Your task to perform on an android device: check storage Image 0: 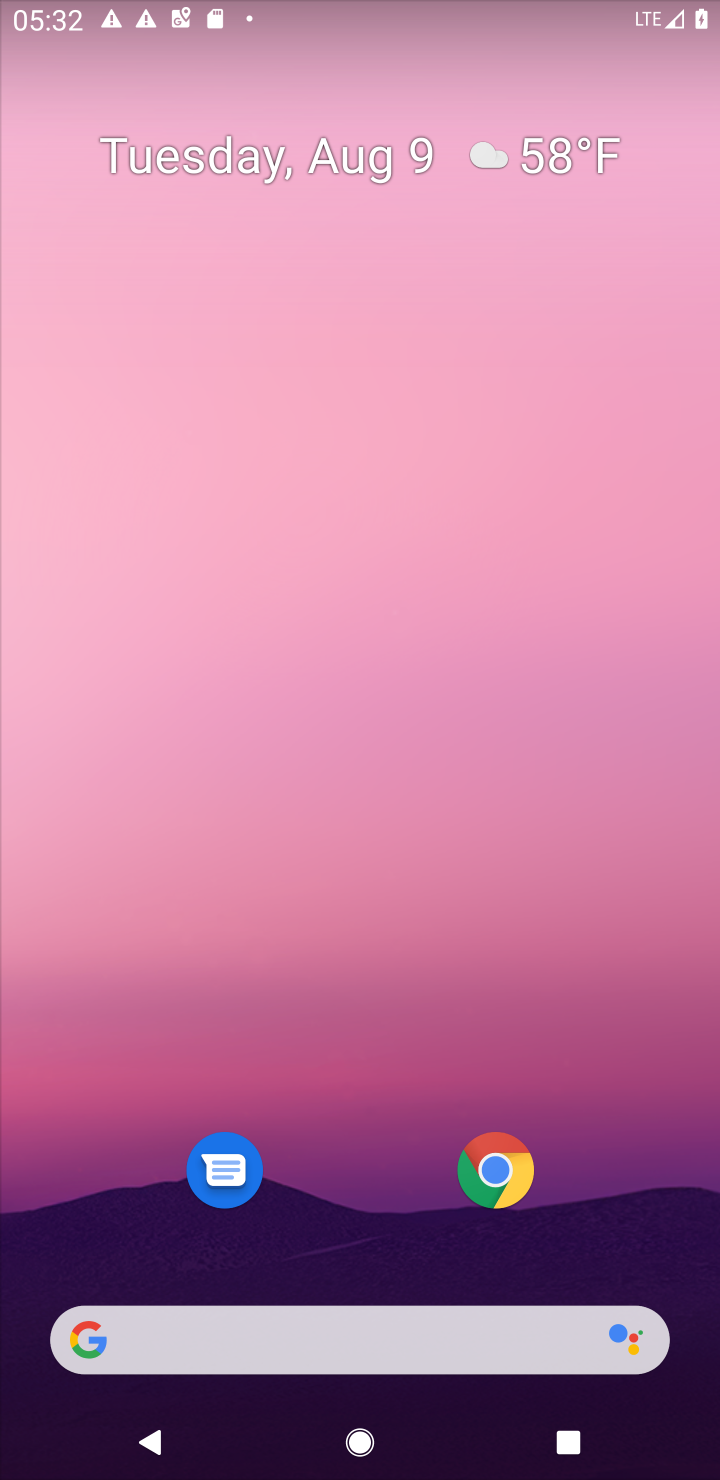
Step 0: press home button
Your task to perform on an android device: check storage Image 1: 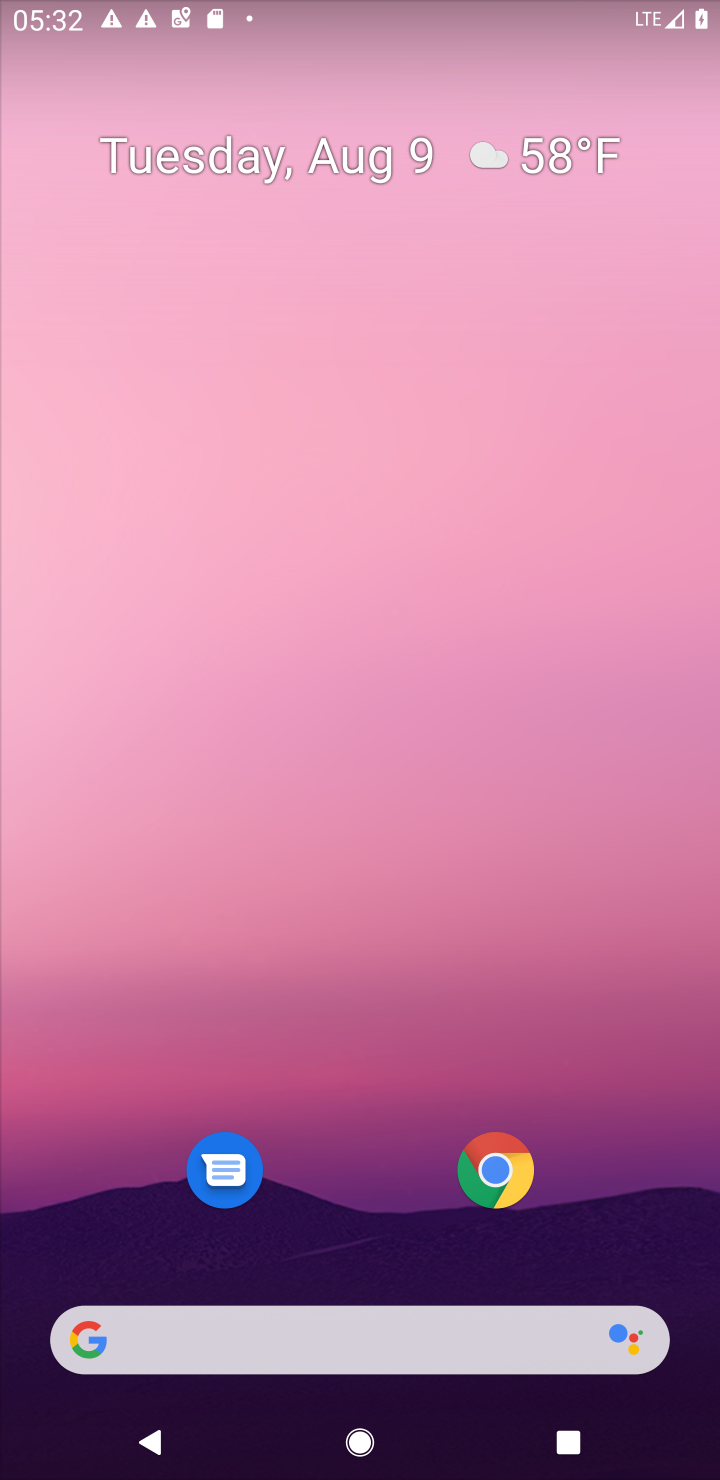
Step 1: drag from (402, 1255) to (384, 46)
Your task to perform on an android device: check storage Image 2: 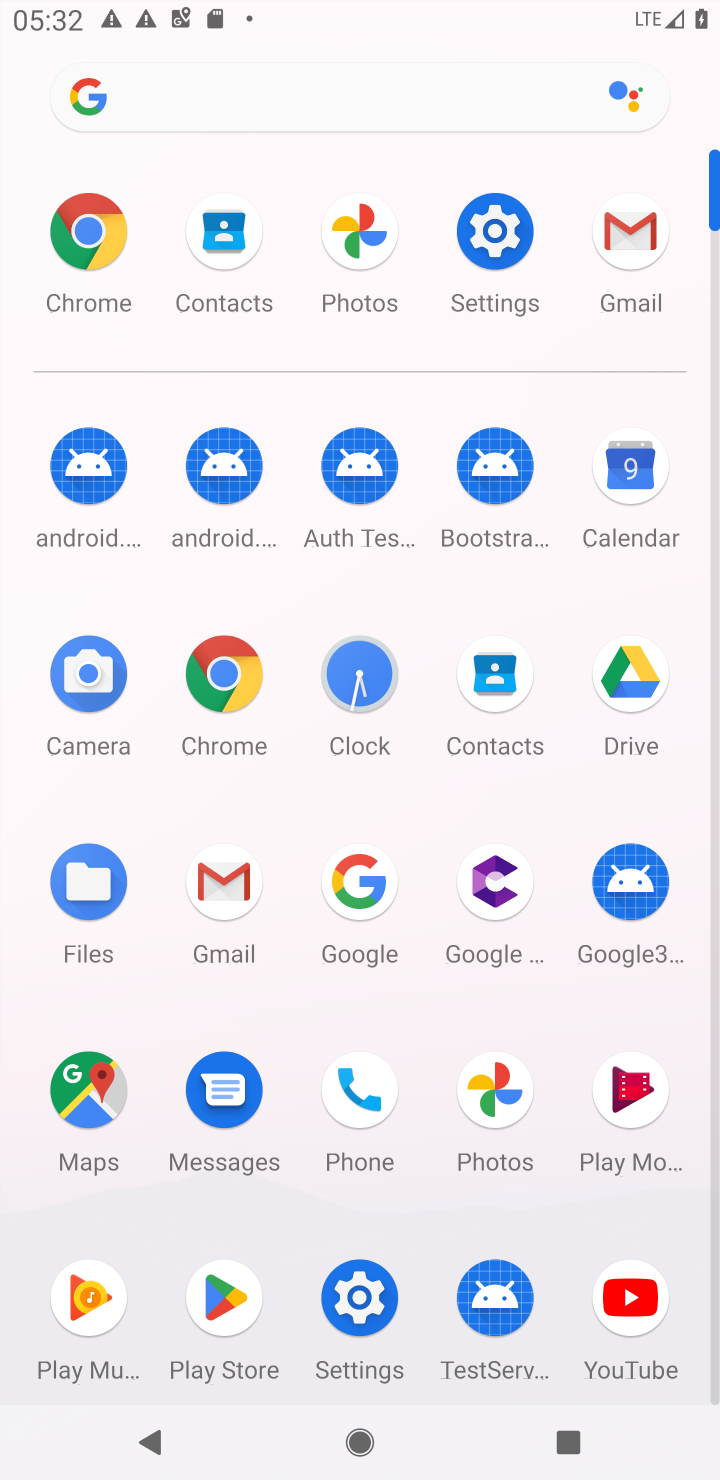
Step 2: click (491, 229)
Your task to perform on an android device: check storage Image 3: 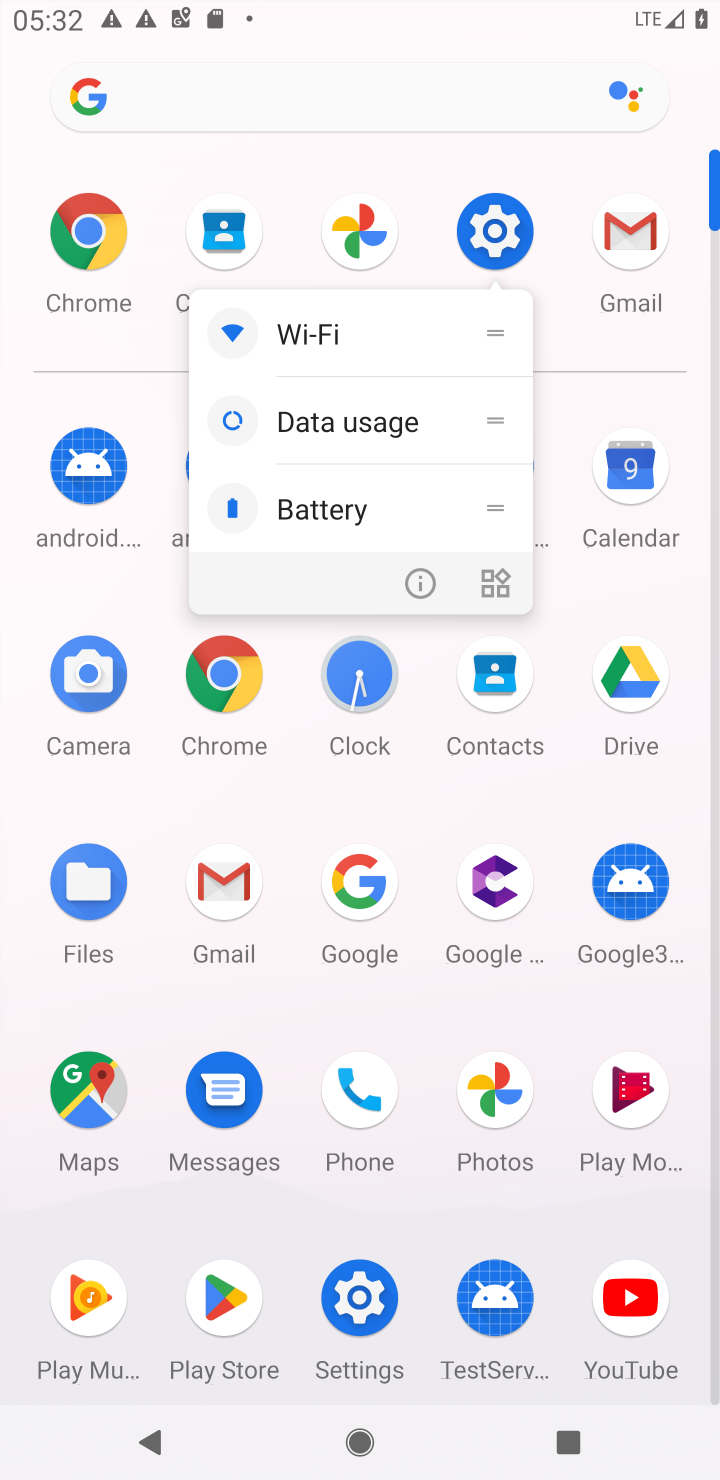
Step 3: click (482, 207)
Your task to perform on an android device: check storage Image 4: 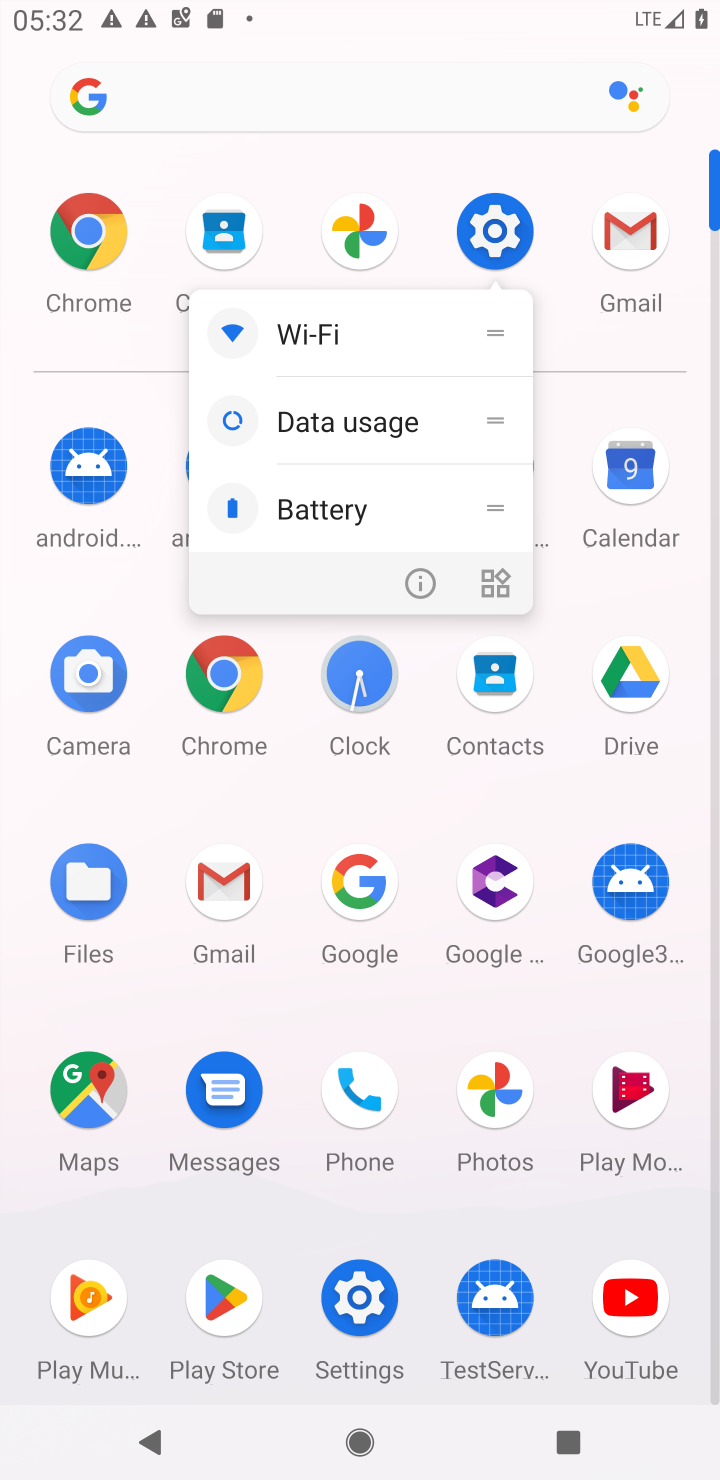
Step 4: click (487, 236)
Your task to perform on an android device: check storage Image 5: 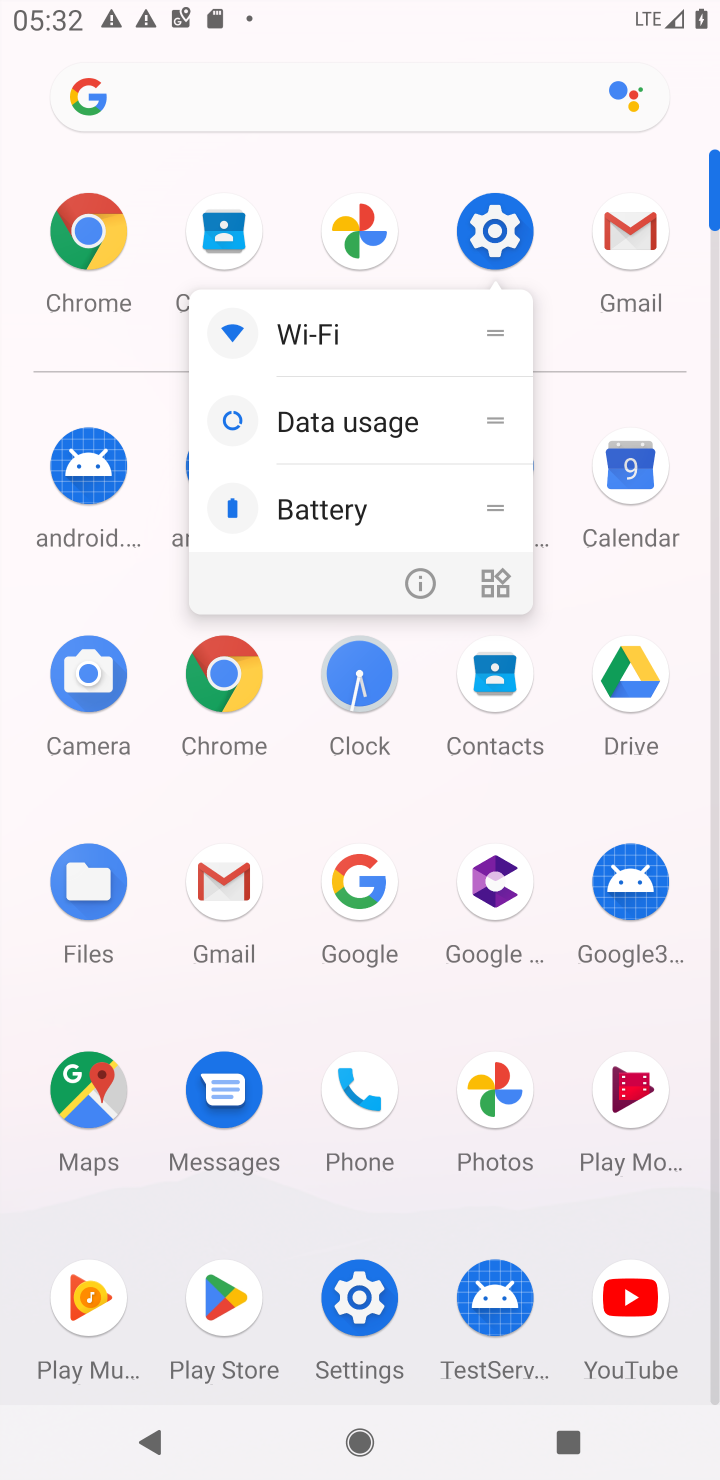
Step 5: click (500, 254)
Your task to perform on an android device: check storage Image 6: 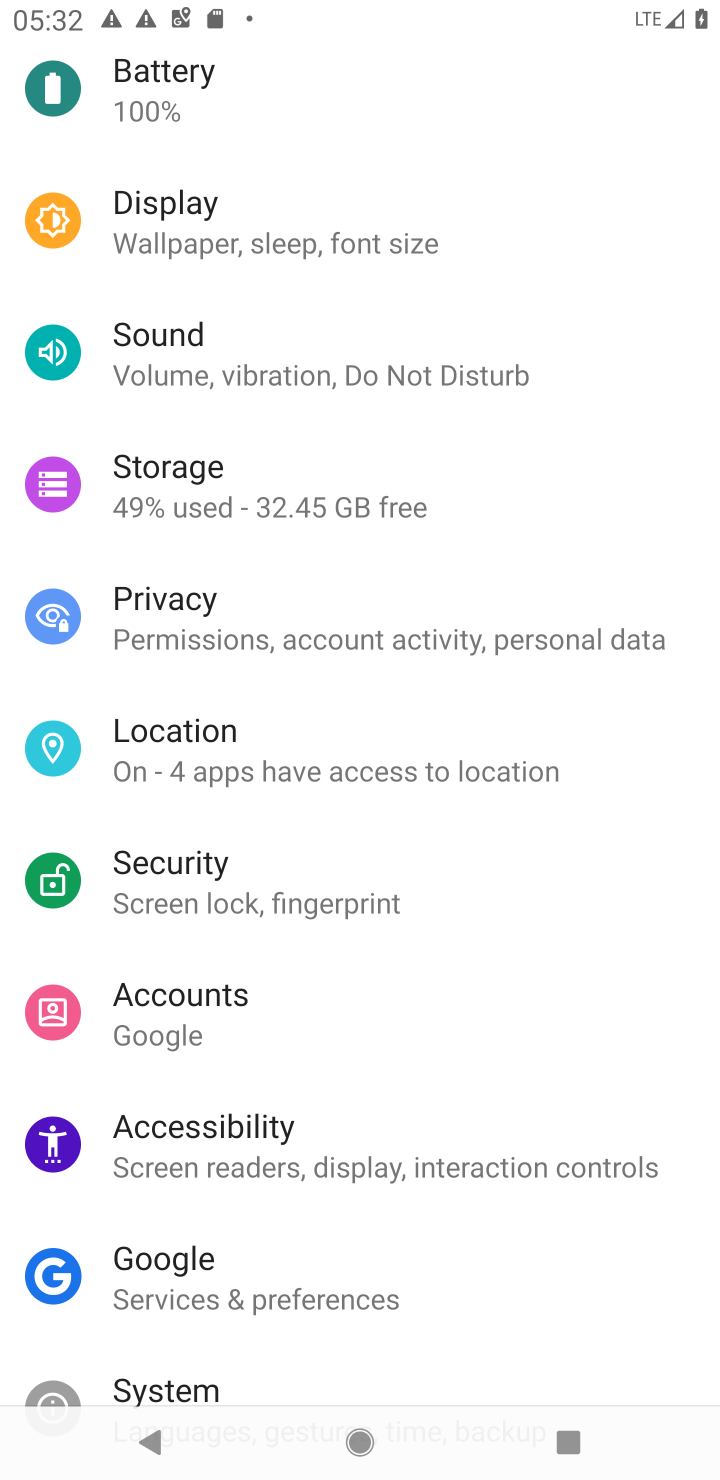
Step 6: click (175, 477)
Your task to perform on an android device: check storage Image 7: 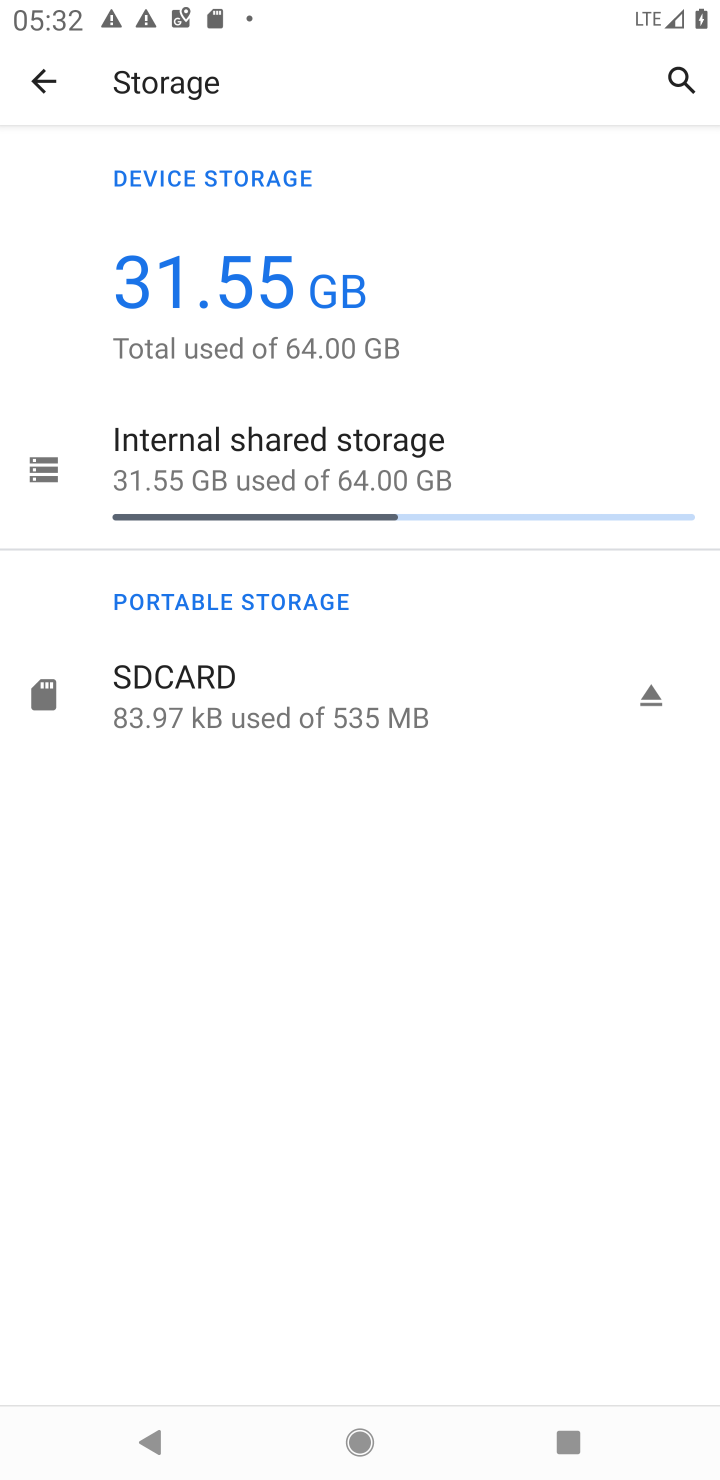
Step 7: task complete